Your task to perform on an android device: turn notification dots off Image 0: 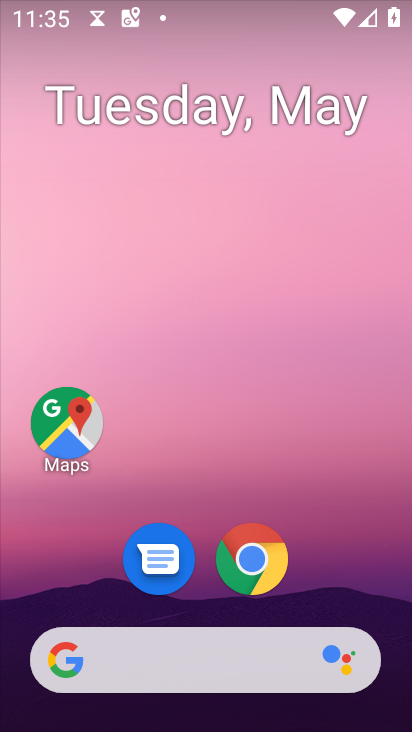
Step 0: drag from (384, 521) to (409, 25)
Your task to perform on an android device: turn notification dots off Image 1: 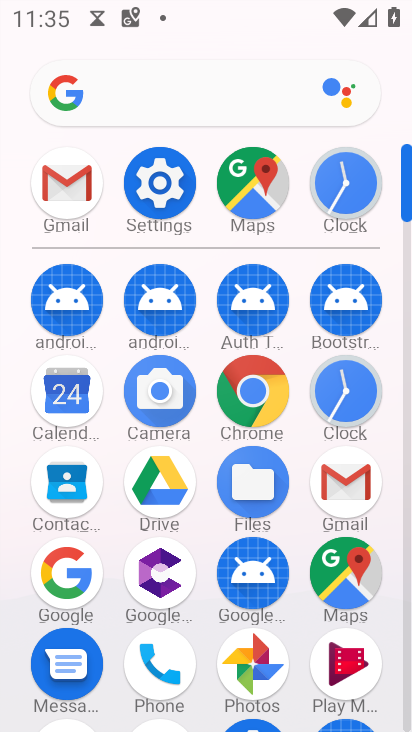
Step 1: click (171, 177)
Your task to perform on an android device: turn notification dots off Image 2: 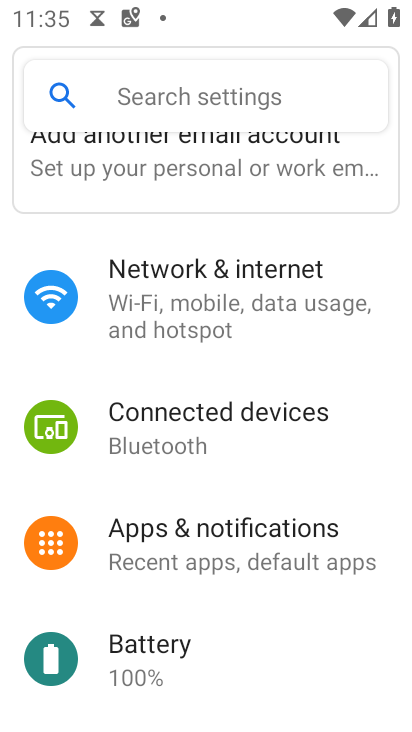
Step 2: click (310, 552)
Your task to perform on an android device: turn notification dots off Image 3: 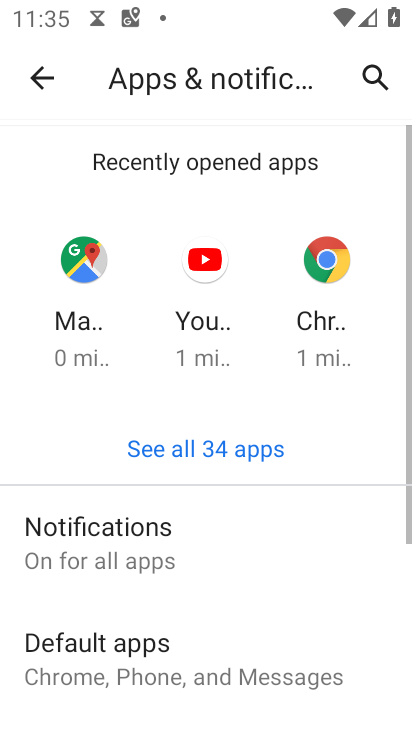
Step 3: drag from (256, 630) to (221, 238)
Your task to perform on an android device: turn notification dots off Image 4: 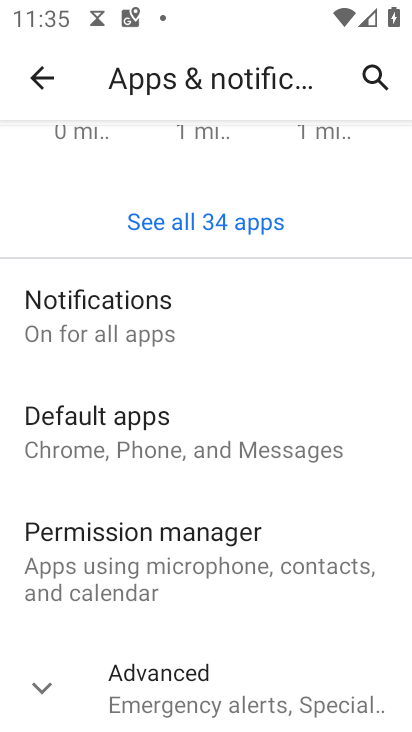
Step 4: click (80, 306)
Your task to perform on an android device: turn notification dots off Image 5: 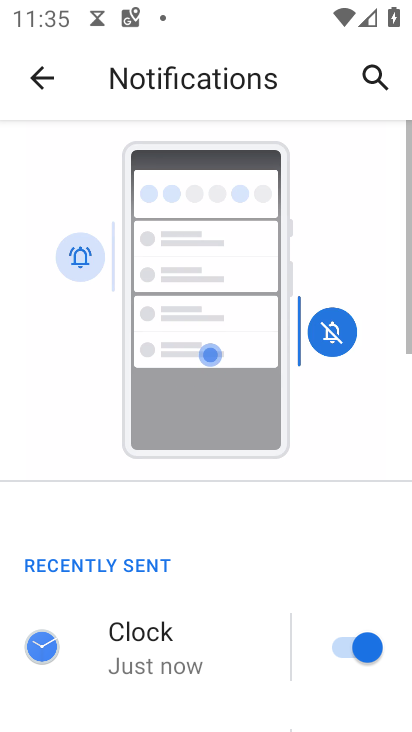
Step 5: drag from (242, 630) to (282, 98)
Your task to perform on an android device: turn notification dots off Image 6: 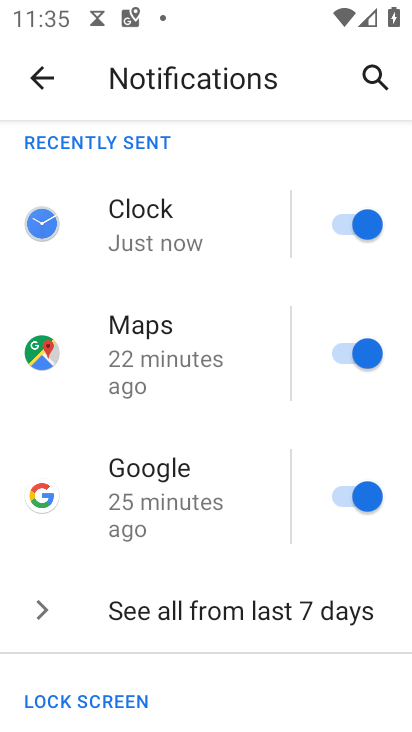
Step 6: drag from (247, 598) to (324, 56)
Your task to perform on an android device: turn notification dots off Image 7: 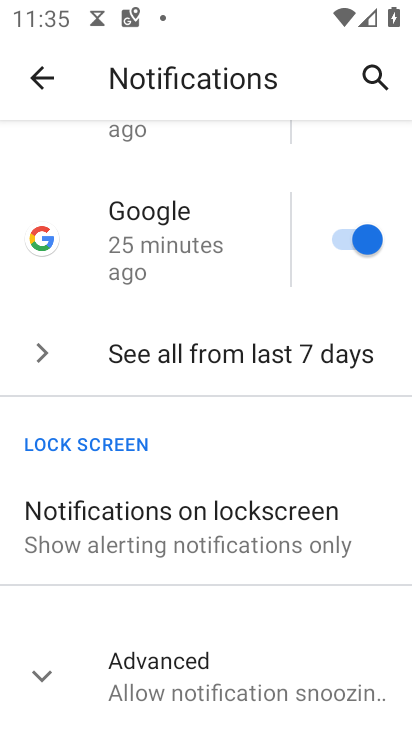
Step 7: click (195, 676)
Your task to perform on an android device: turn notification dots off Image 8: 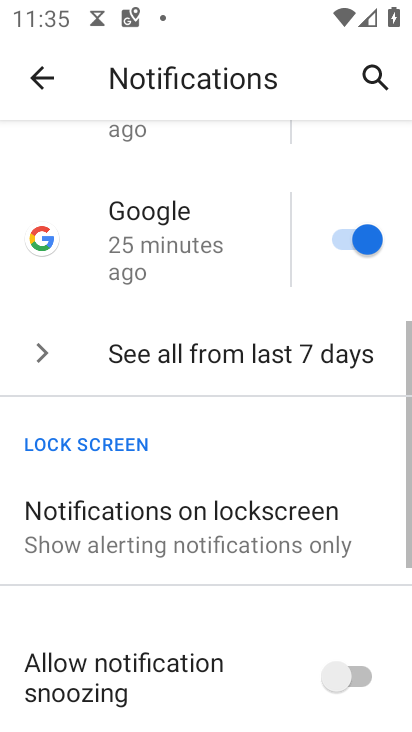
Step 8: task complete